Your task to perform on an android device: Do I have any events tomorrow? Image 0: 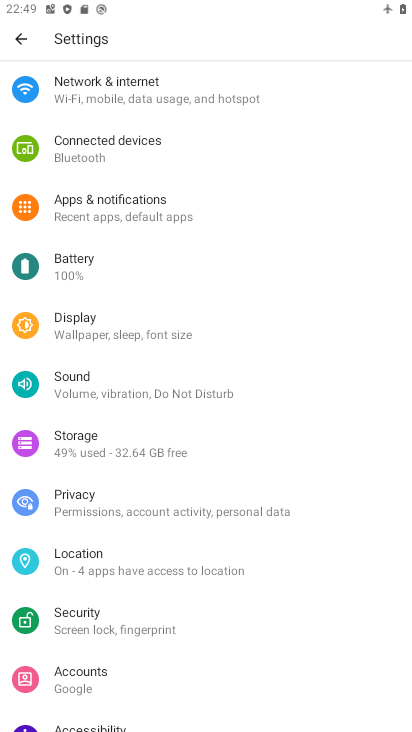
Step 0: press home button
Your task to perform on an android device: Do I have any events tomorrow? Image 1: 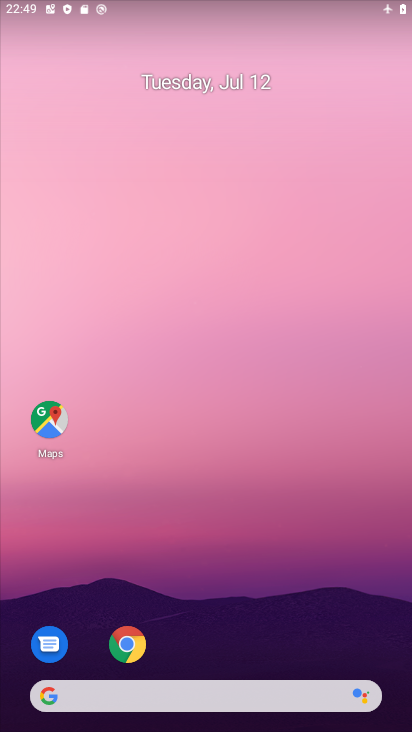
Step 1: drag from (210, 729) to (275, 2)
Your task to perform on an android device: Do I have any events tomorrow? Image 2: 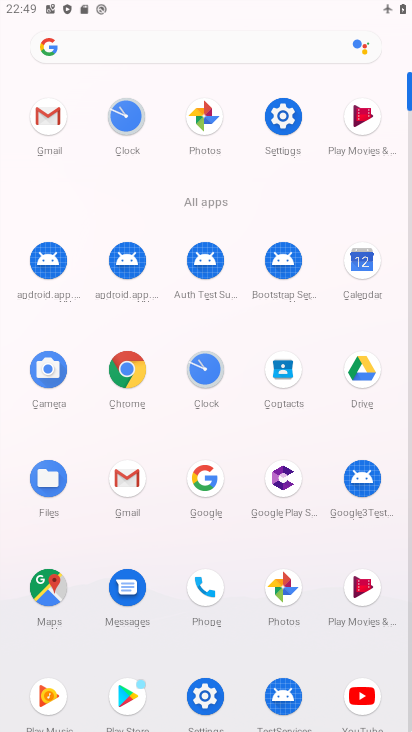
Step 2: click (370, 260)
Your task to perform on an android device: Do I have any events tomorrow? Image 3: 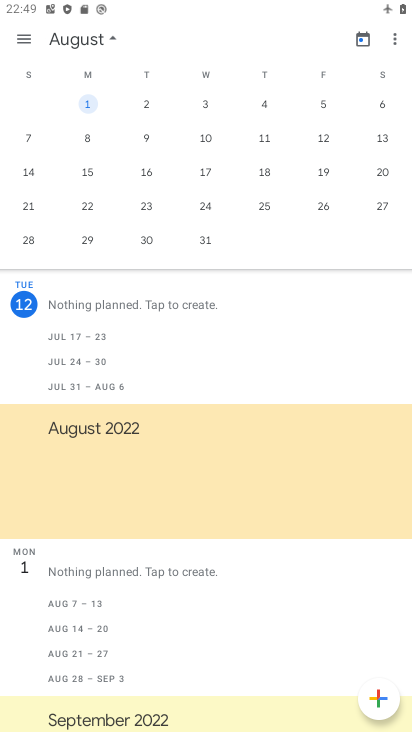
Step 3: drag from (137, 151) to (302, 161)
Your task to perform on an android device: Do I have any events tomorrow? Image 4: 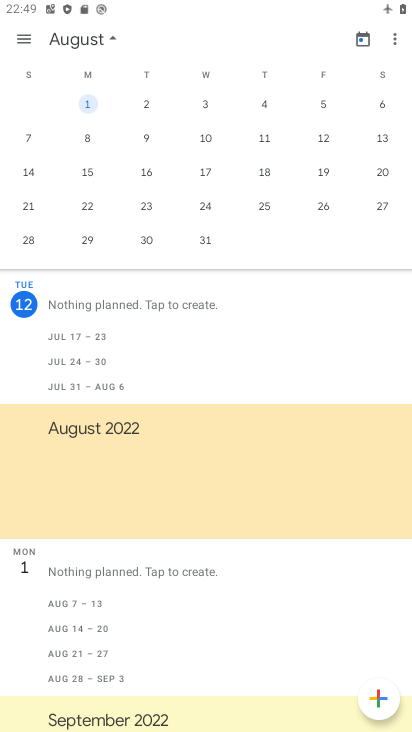
Step 4: drag from (12, 153) to (370, 194)
Your task to perform on an android device: Do I have any events tomorrow? Image 5: 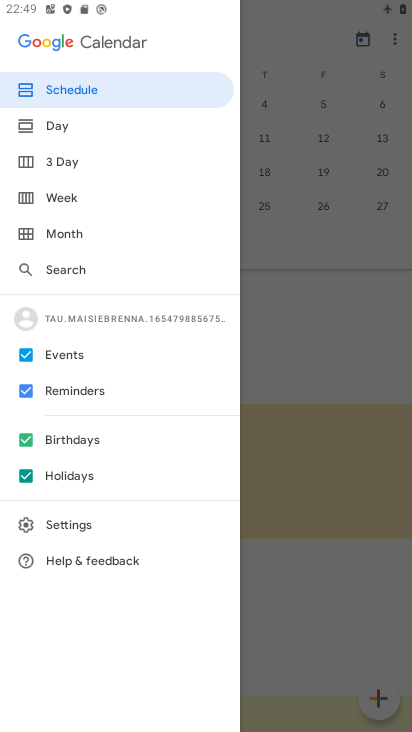
Step 5: click (284, 301)
Your task to perform on an android device: Do I have any events tomorrow? Image 6: 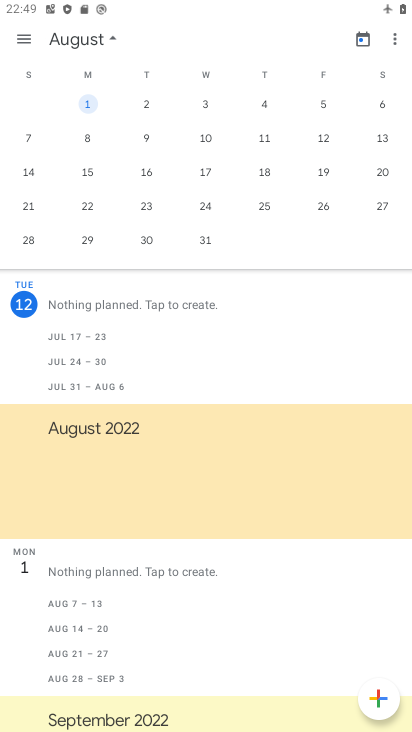
Step 6: drag from (17, 147) to (408, 233)
Your task to perform on an android device: Do I have any events tomorrow? Image 7: 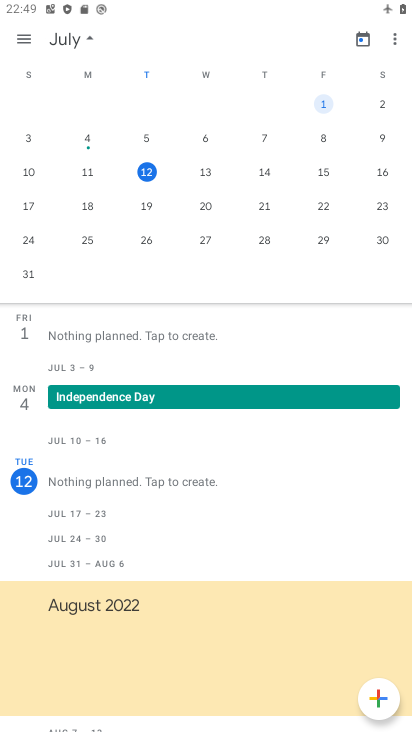
Step 7: click (205, 171)
Your task to perform on an android device: Do I have any events tomorrow? Image 8: 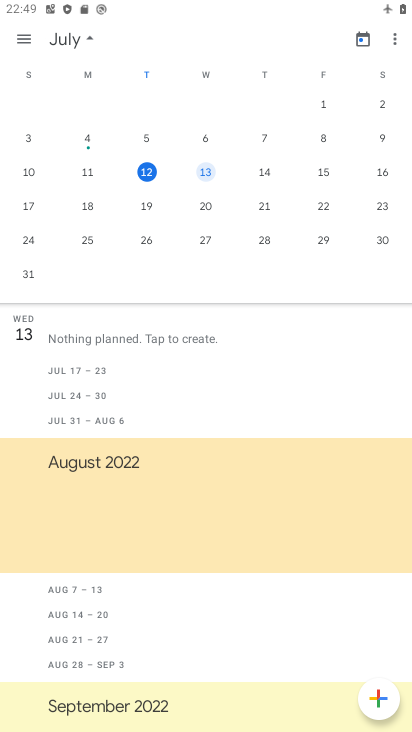
Step 8: task complete